Your task to perform on an android device: Go to Maps Image 0: 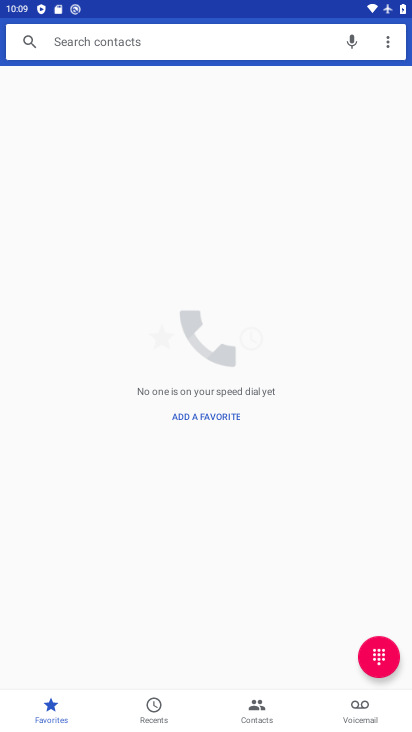
Step 0: press home button
Your task to perform on an android device: Go to Maps Image 1: 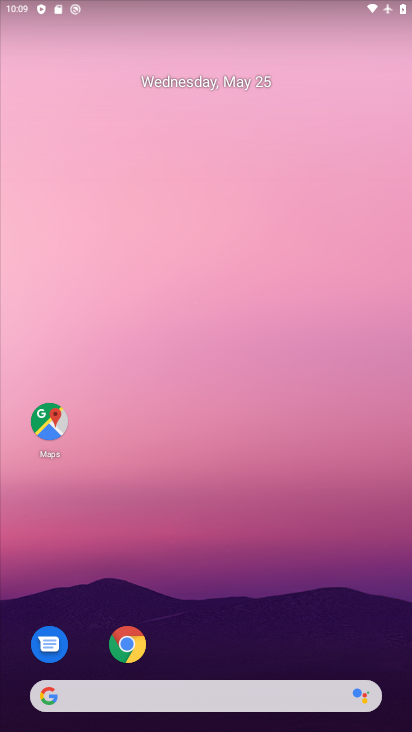
Step 1: click (44, 421)
Your task to perform on an android device: Go to Maps Image 2: 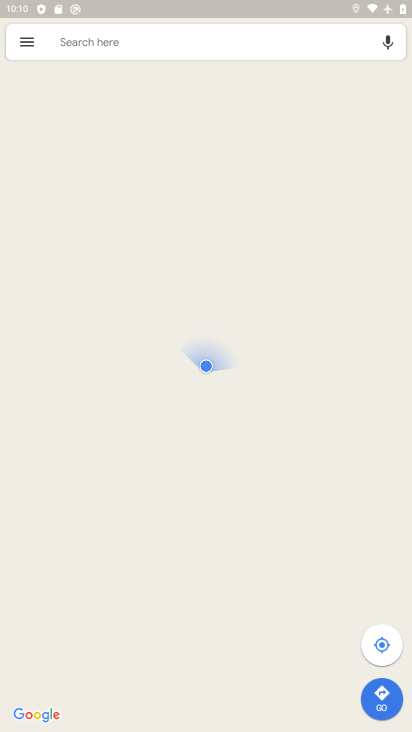
Step 2: task complete